Your task to perform on an android device: open app "Adobe Acrobat Reader: Edit PDF" (install if not already installed) and go to login screen Image 0: 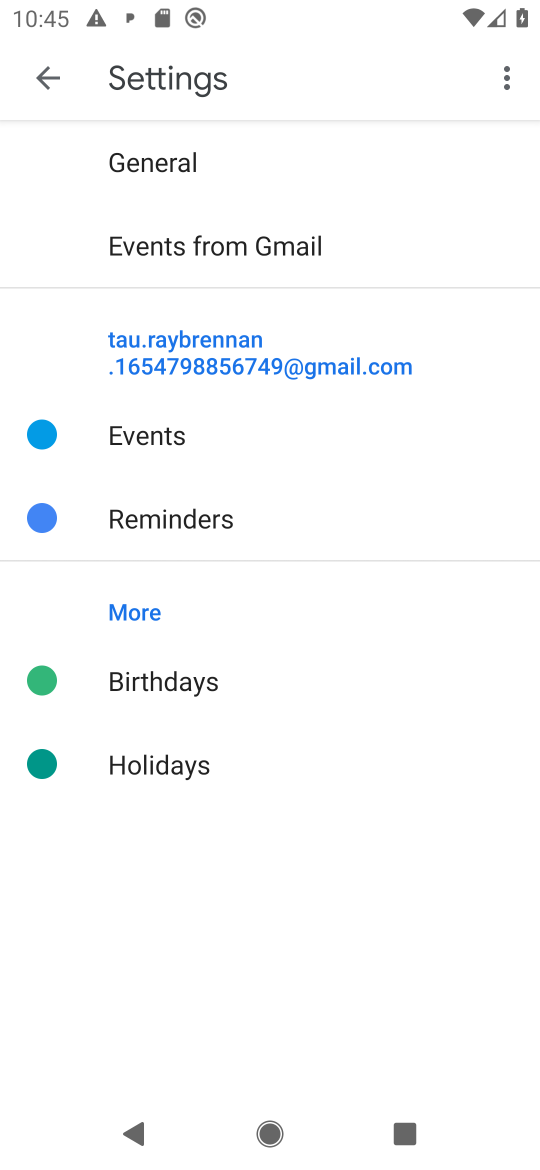
Step 0: press home button
Your task to perform on an android device: open app "Adobe Acrobat Reader: Edit PDF" (install if not already installed) and go to login screen Image 1: 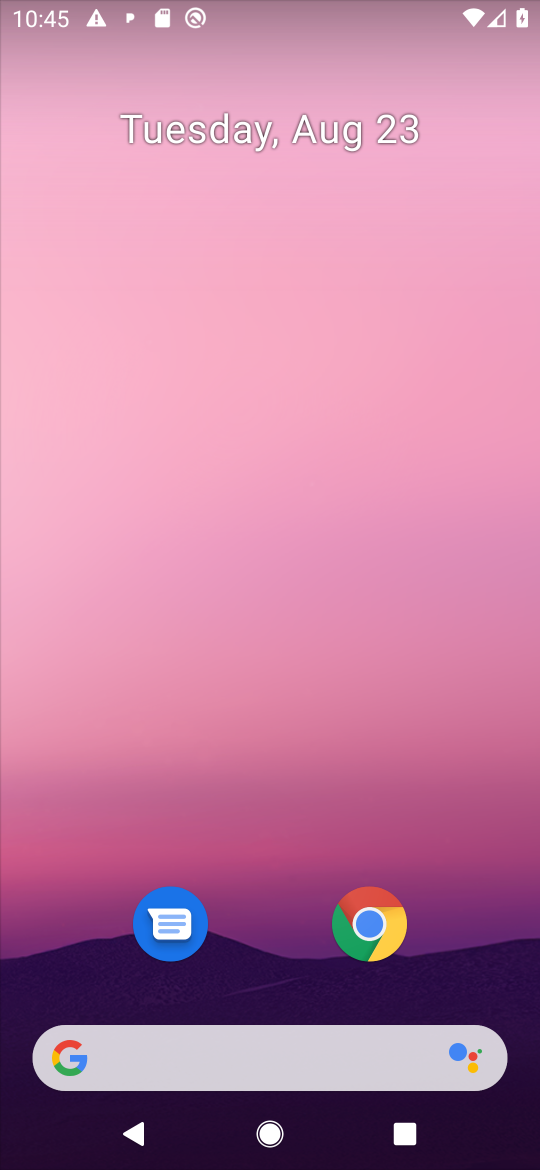
Step 1: drag from (449, 946) to (453, 82)
Your task to perform on an android device: open app "Adobe Acrobat Reader: Edit PDF" (install if not already installed) and go to login screen Image 2: 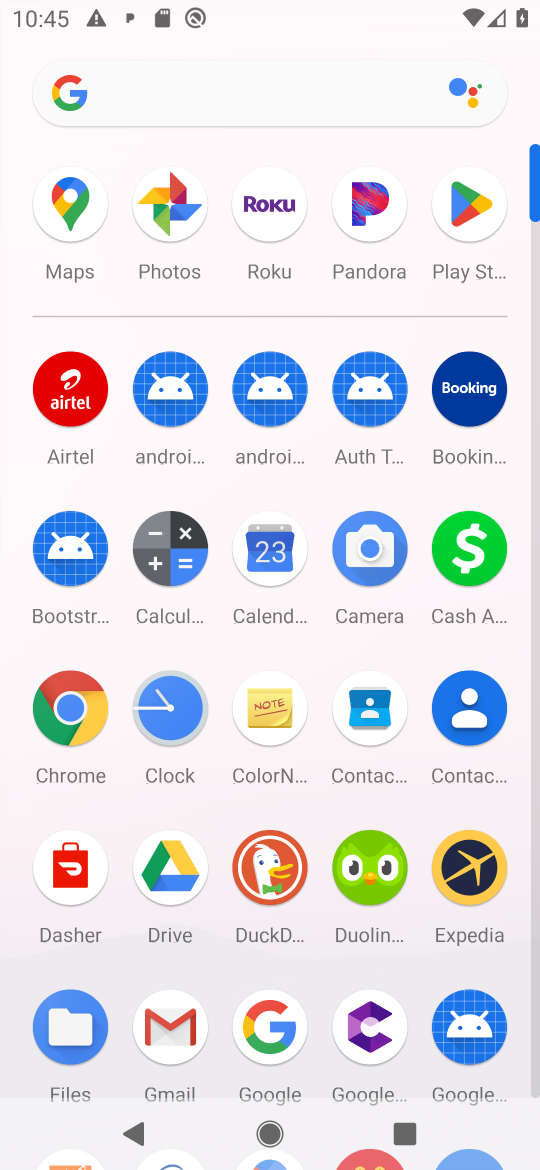
Step 2: click (471, 199)
Your task to perform on an android device: open app "Adobe Acrobat Reader: Edit PDF" (install if not already installed) and go to login screen Image 3: 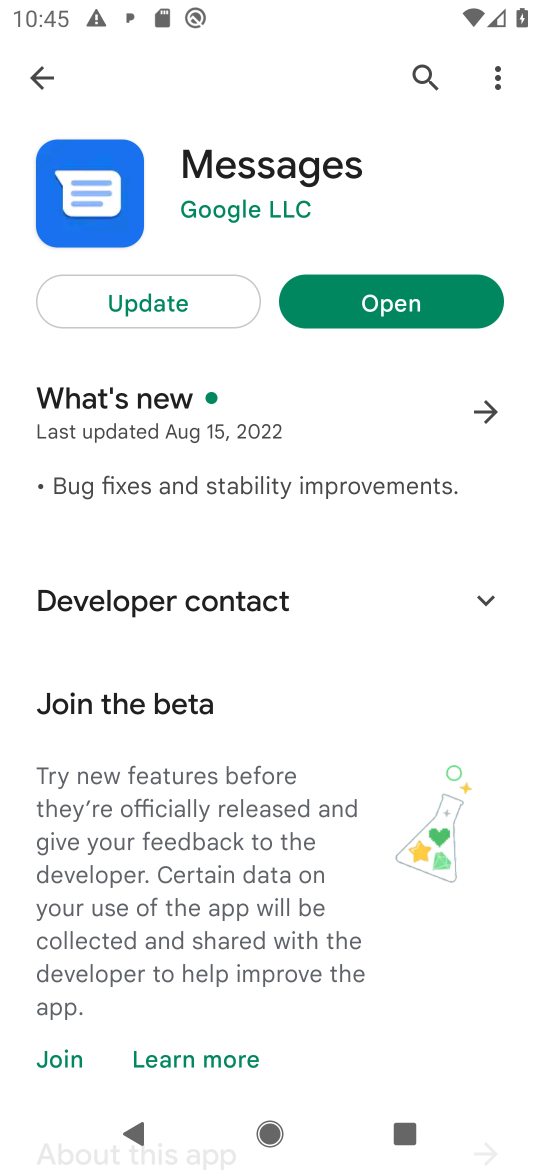
Step 3: press back button
Your task to perform on an android device: open app "Adobe Acrobat Reader: Edit PDF" (install if not already installed) and go to login screen Image 4: 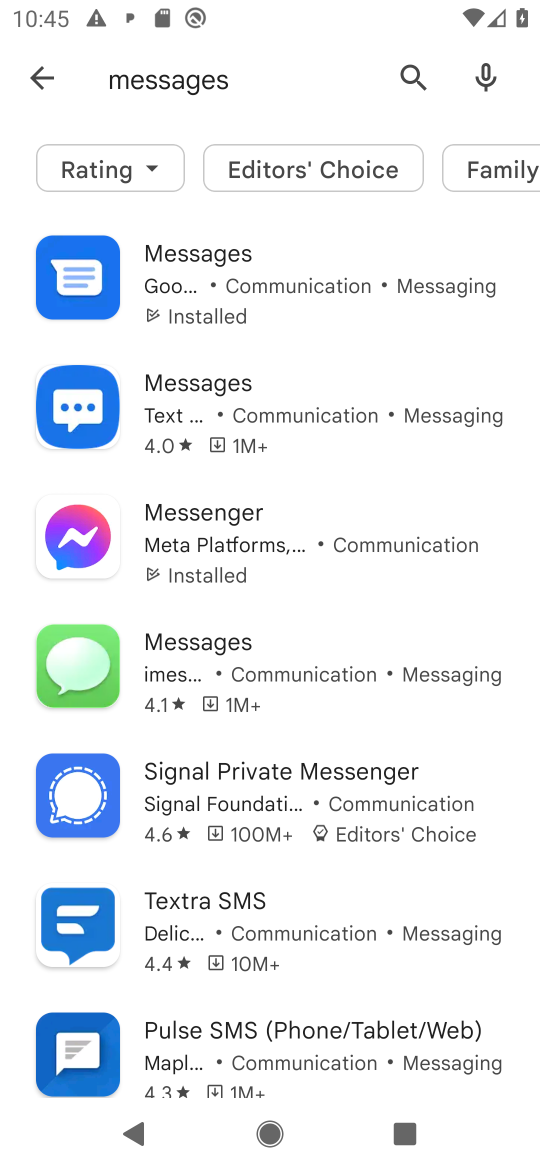
Step 4: press back button
Your task to perform on an android device: open app "Adobe Acrobat Reader: Edit PDF" (install if not already installed) and go to login screen Image 5: 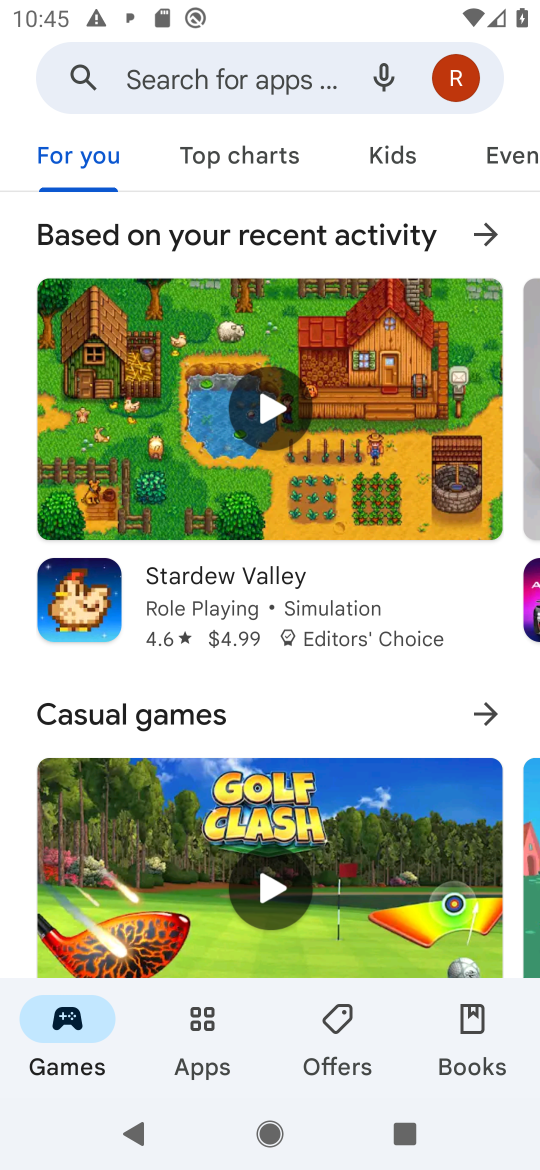
Step 5: click (174, 77)
Your task to perform on an android device: open app "Adobe Acrobat Reader: Edit PDF" (install if not already installed) and go to login screen Image 6: 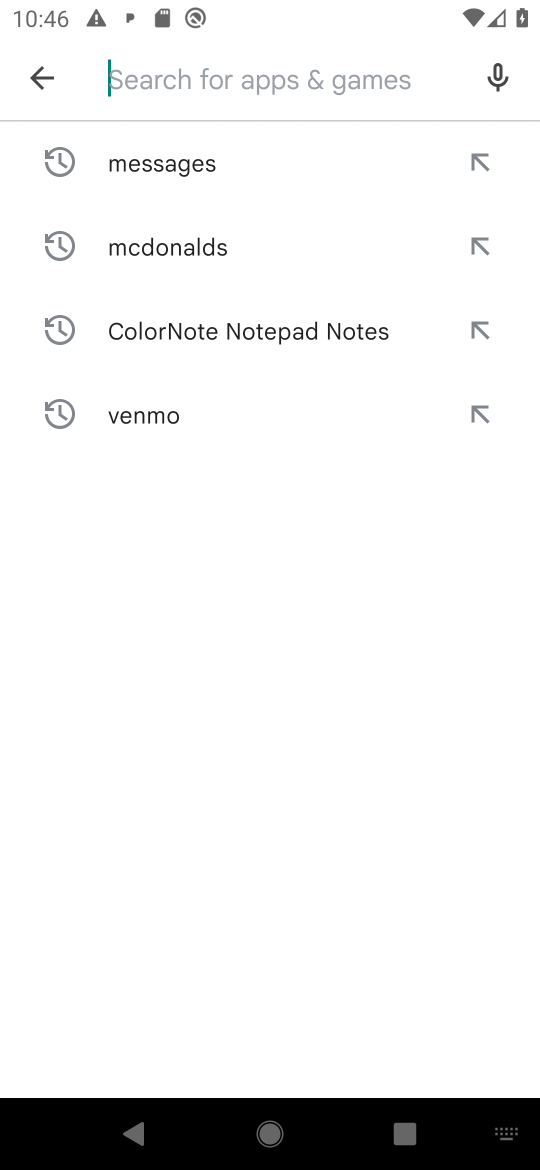
Step 6: type "Adobe Acrobat Reader: Edit PDF"
Your task to perform on an android device: open app "Adobe Acrobat Reader: Edit PDF" (install if not already installed) and go to login screen Image 7: 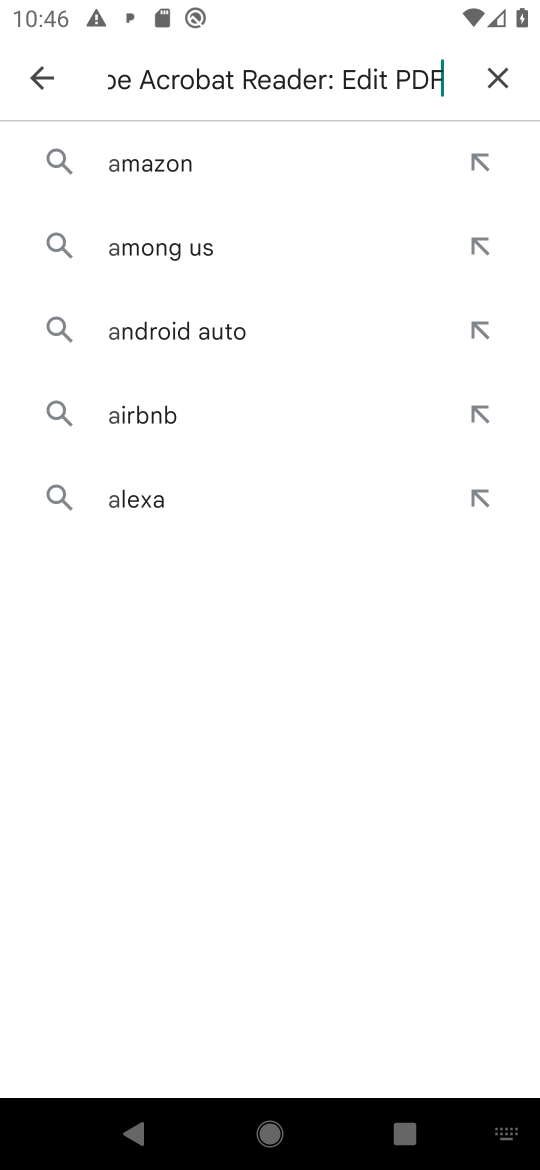
Step 7: press enter
Your task to perform on an android device: open app "Adobe Acrobat Reader: Edit PDF" (install if not already installed) and go to login screen Image 8: 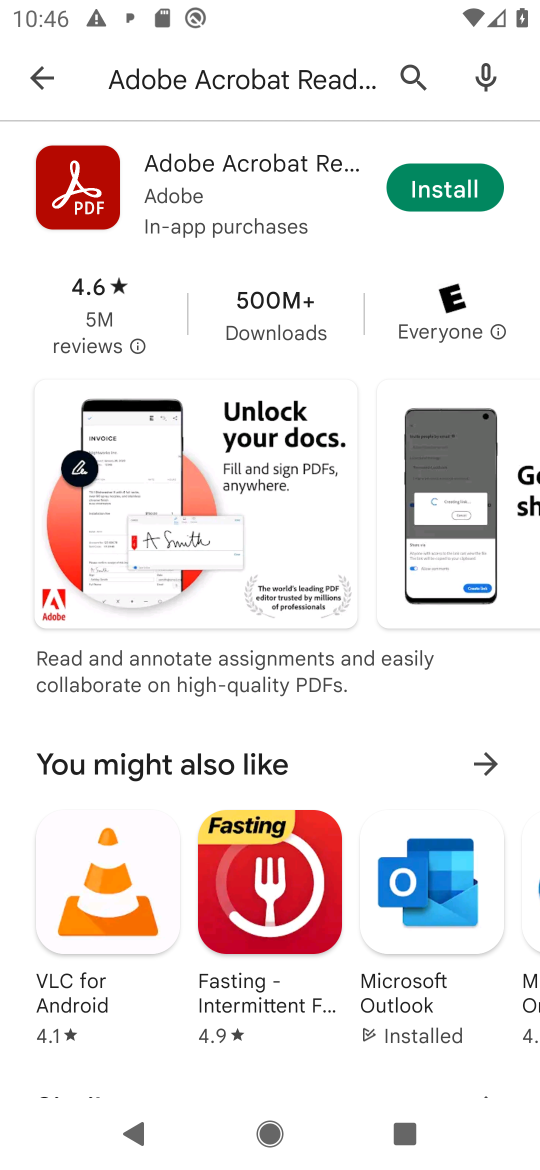
Step 8: click (442, 186)
Your task to perform on an android device: open app "Adobe Acrobat Reader: Edit PDF" (install if not already installed) and go to login screen Image 9: 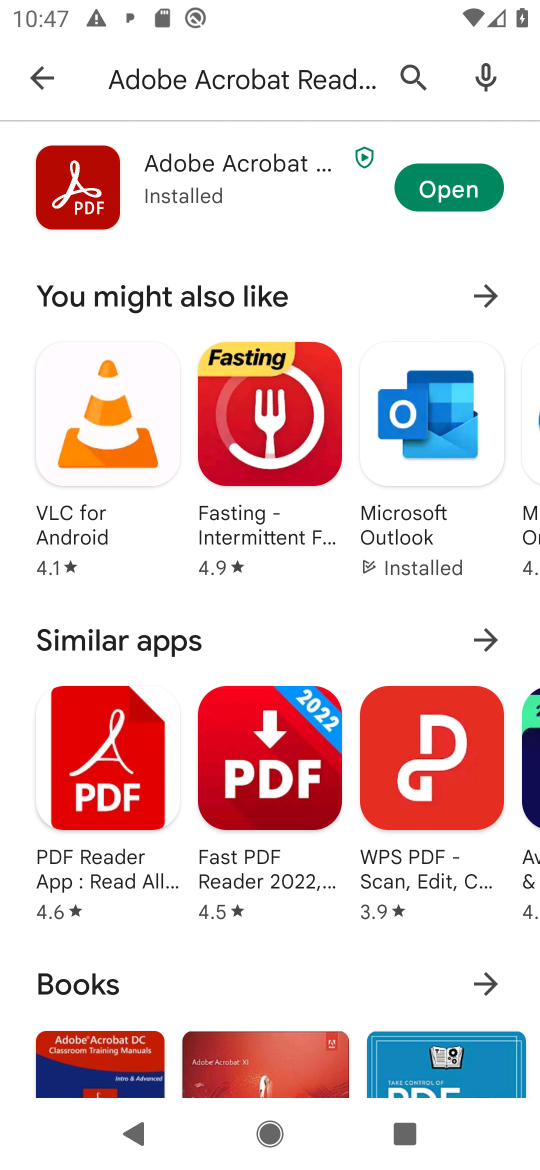
Step 9: click (431, 203)
Your task to perform on an android device: open app "Adobe Acrobat Reader: Edit PDF" (install if not already installed) and go to login screen Image 10: 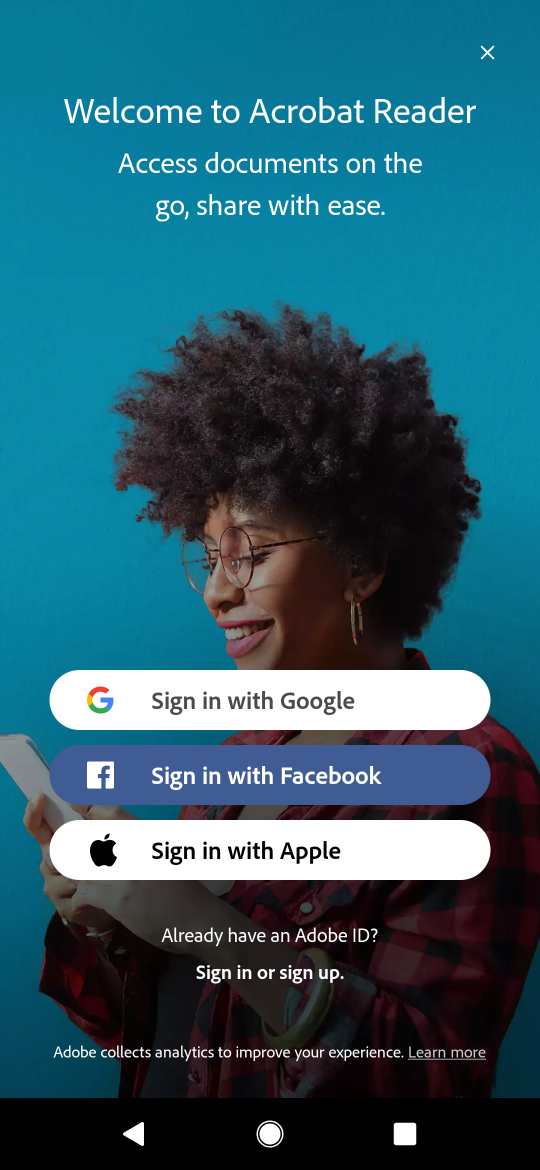
Step 10: task complete